Your task to perform on an android device: install app "Viber Messenger" Image 0: 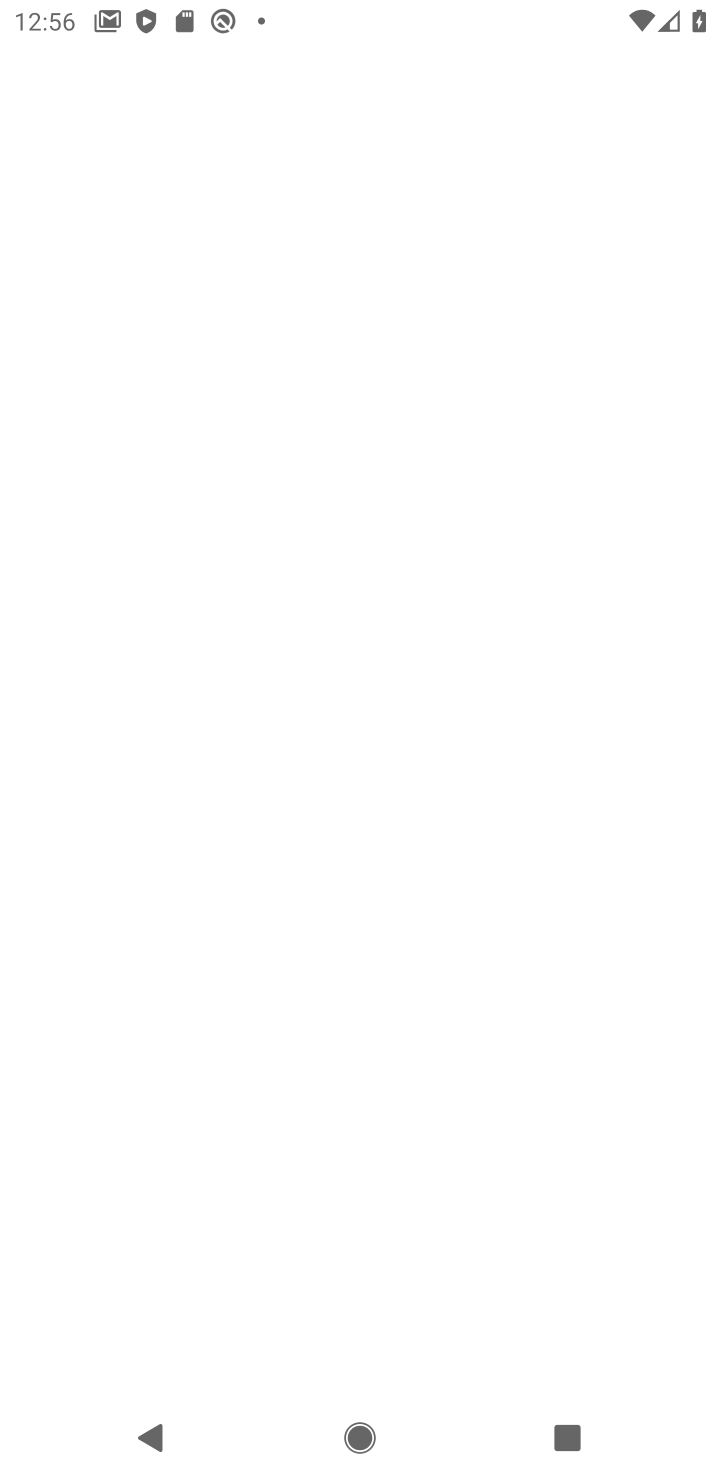
Step 0: drag from (350, 1211) to (539, 481)
Your task to perform on an android device: install app "Viber Messenger" Image 1: 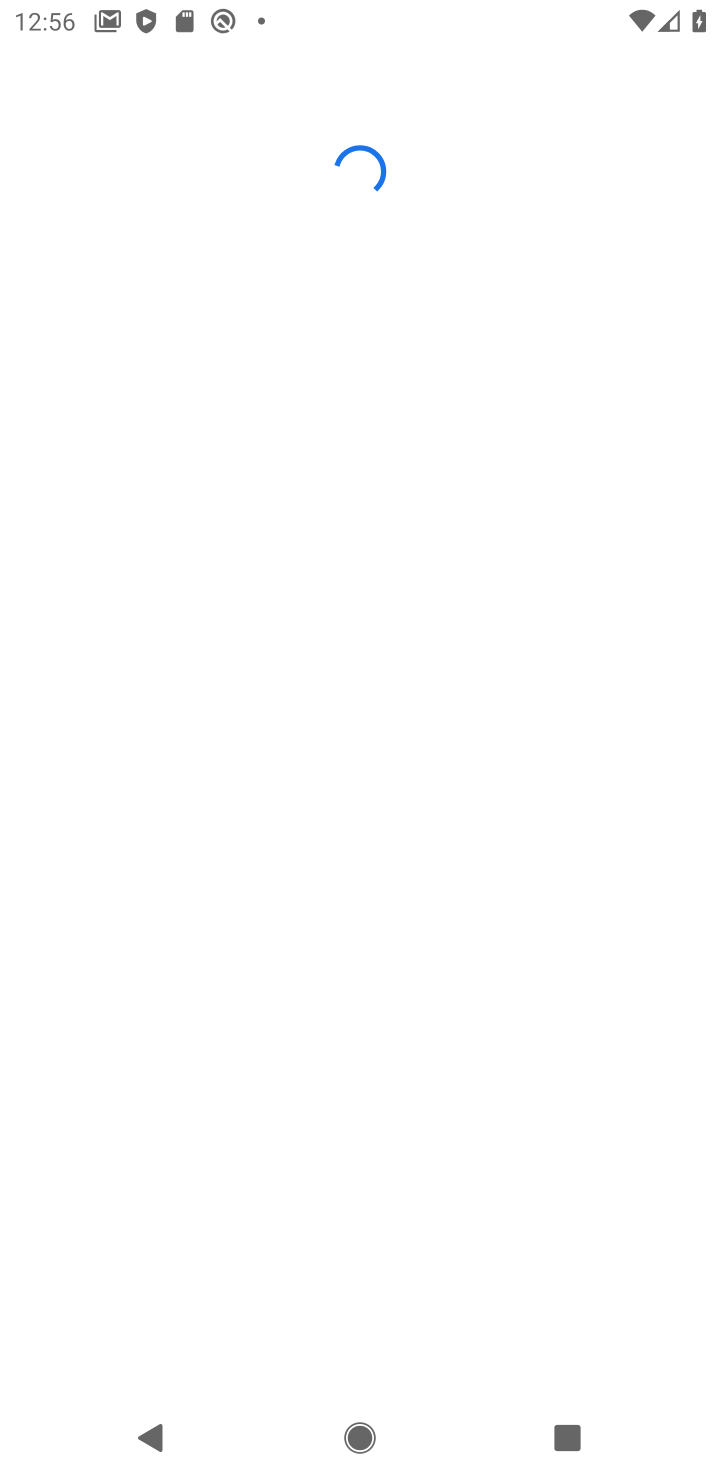
Step 1: press home button
Your task to perform on an android device: install app "Viber Messenger" Image 2: 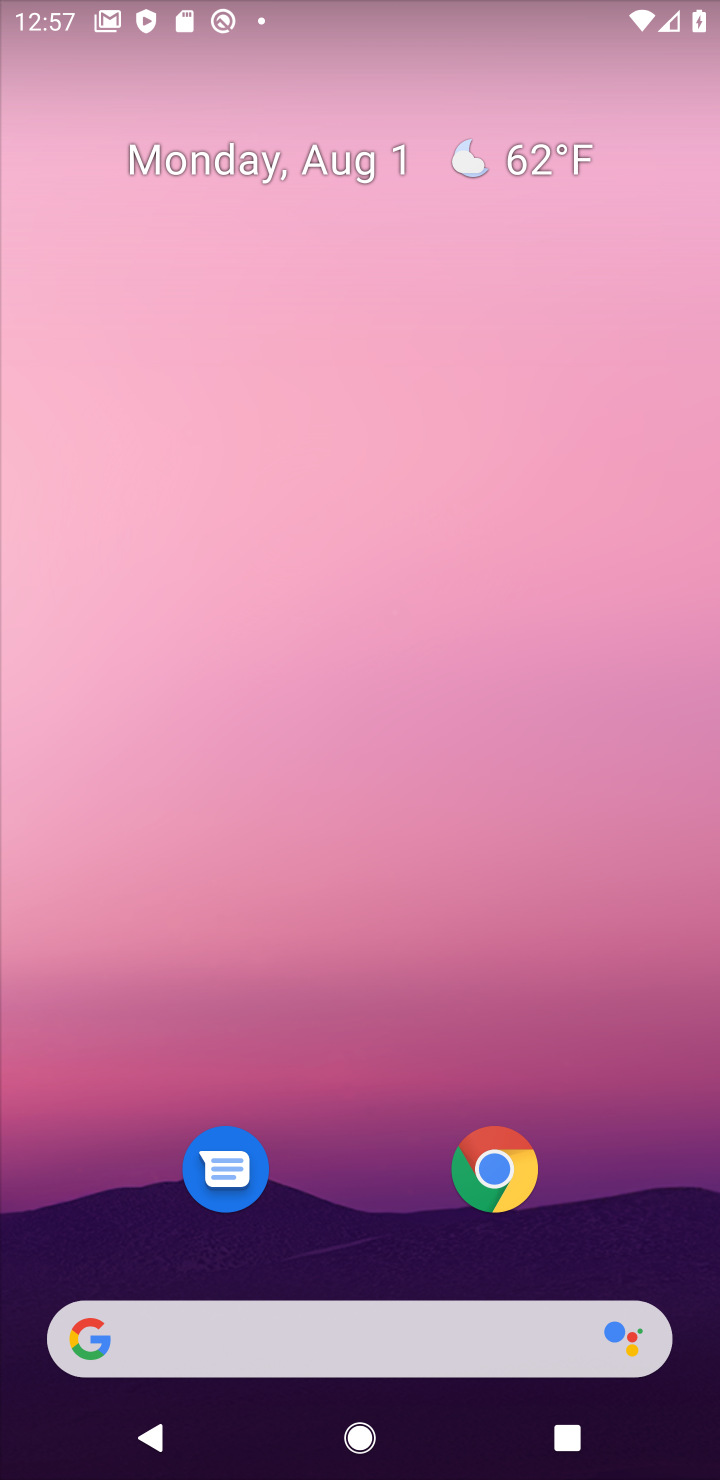
Step 2: drag from (275, 1158) to (438, 197)
Your task to perform on an android device: install app "Viber Messenger" Image 3: 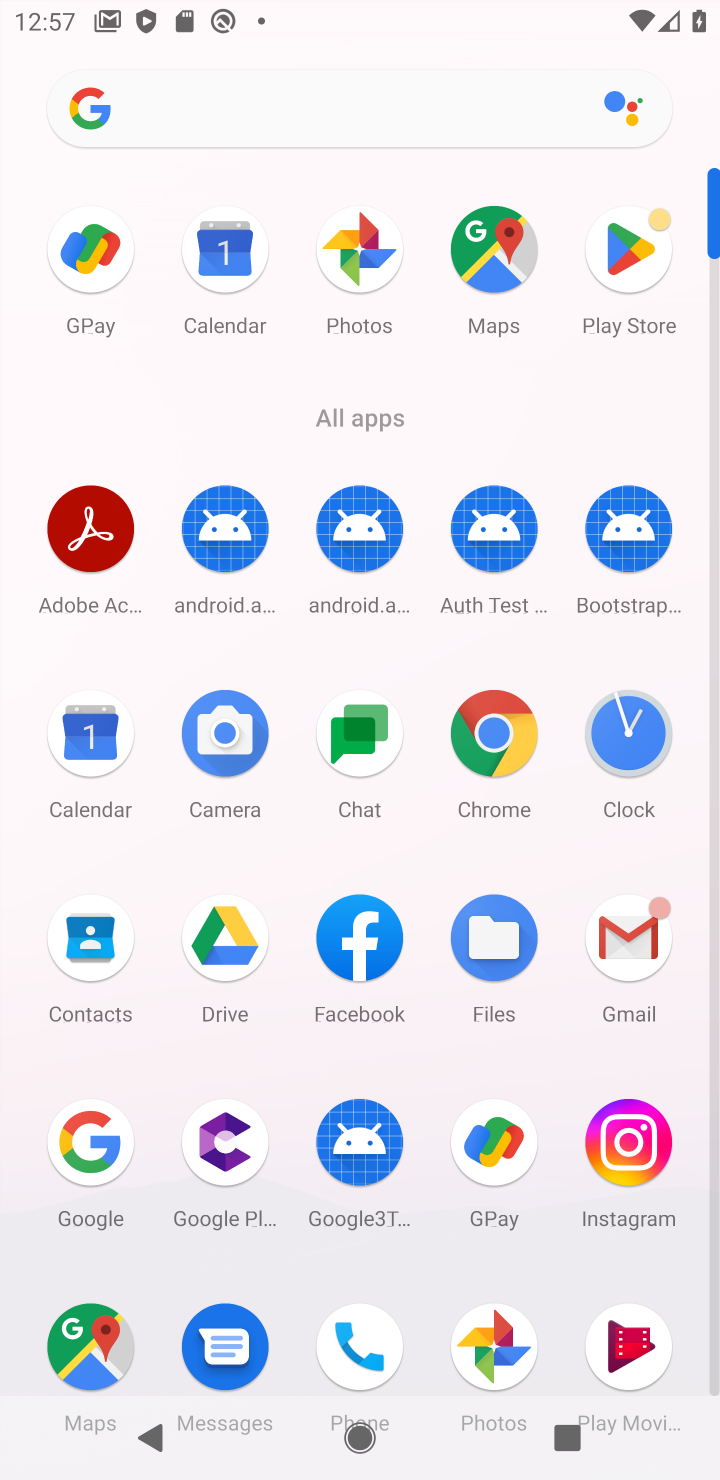
Step 3: click (622, 310)
Your task to perform on an android device: install app "Viber Messenger" Image 4: 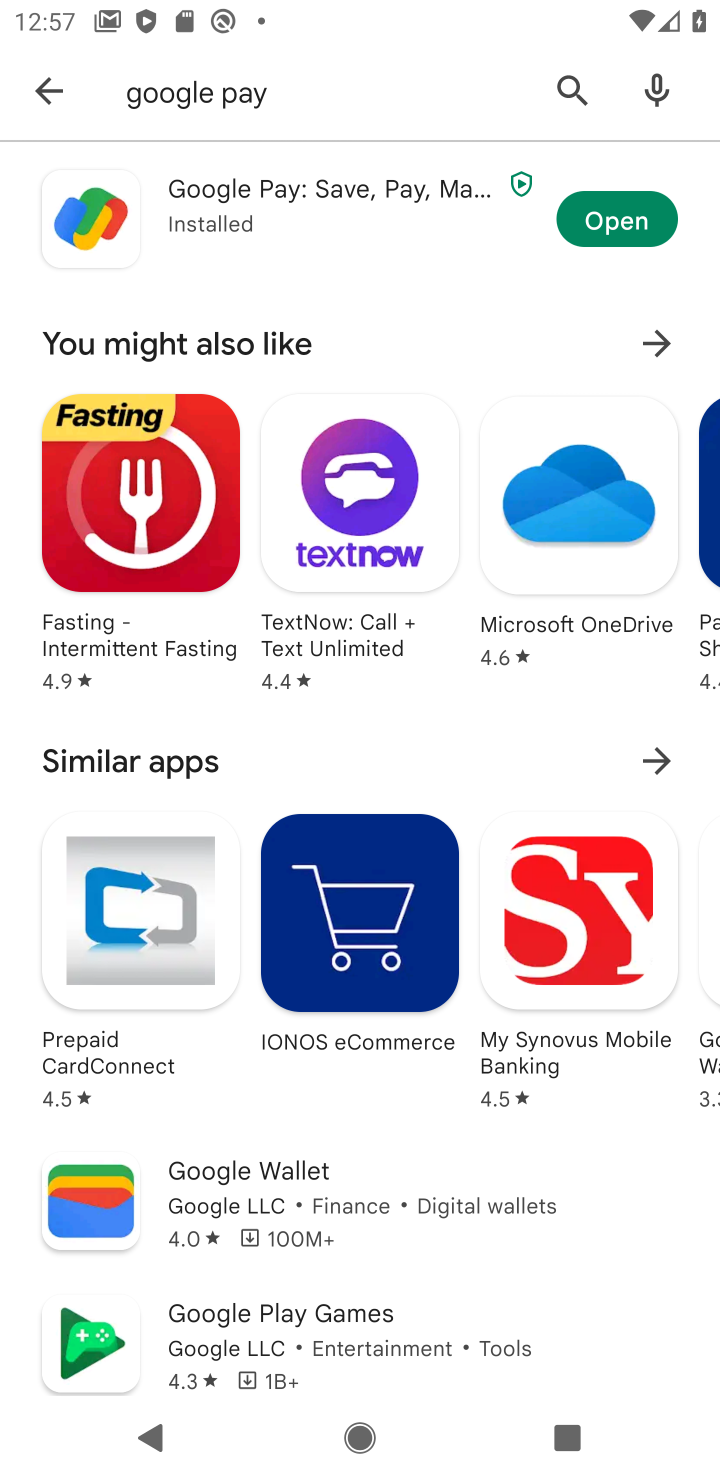
Step 4: click (45, 91)
Your task to perform on an android device: install app "Viber Messenger" Image 5: 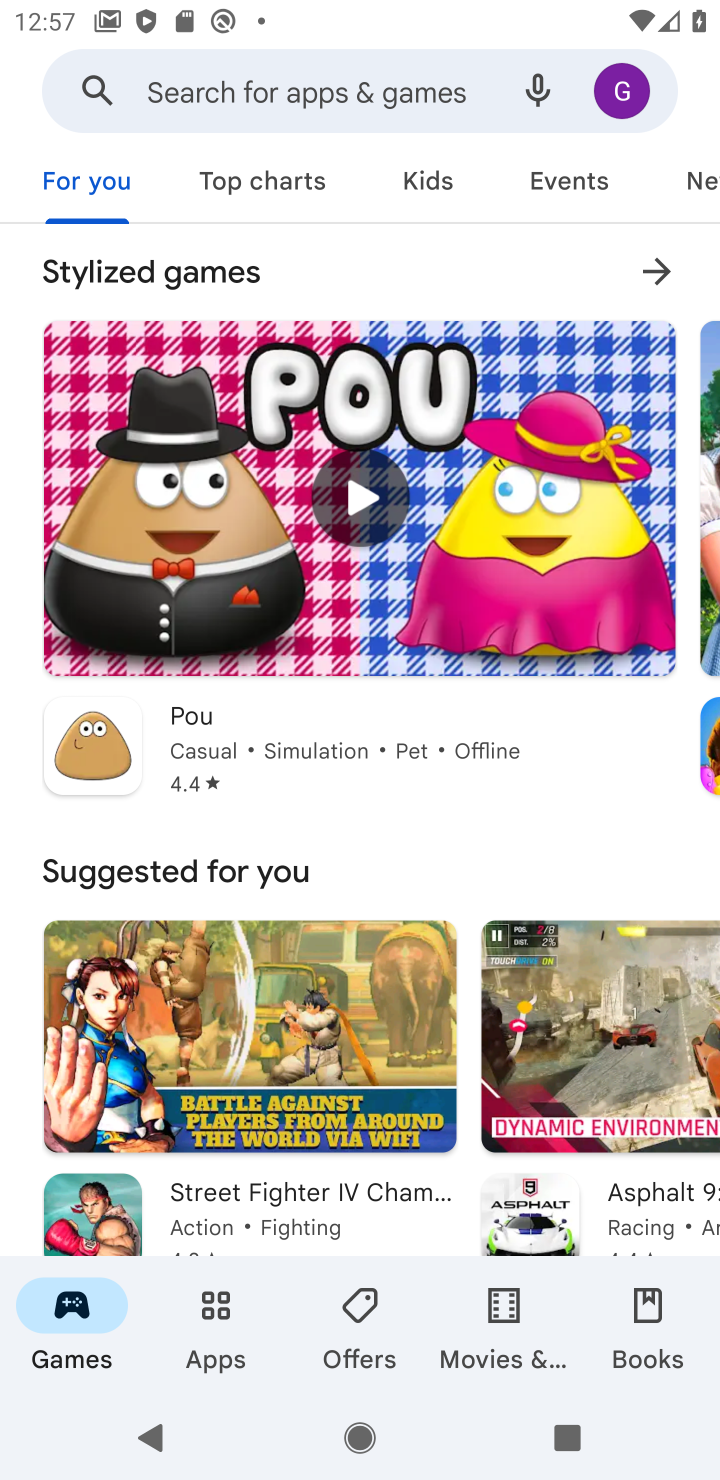
Step 5: click (259, 66)
Your task to perform on an android device: install app "Viber Messenger" Image 6: 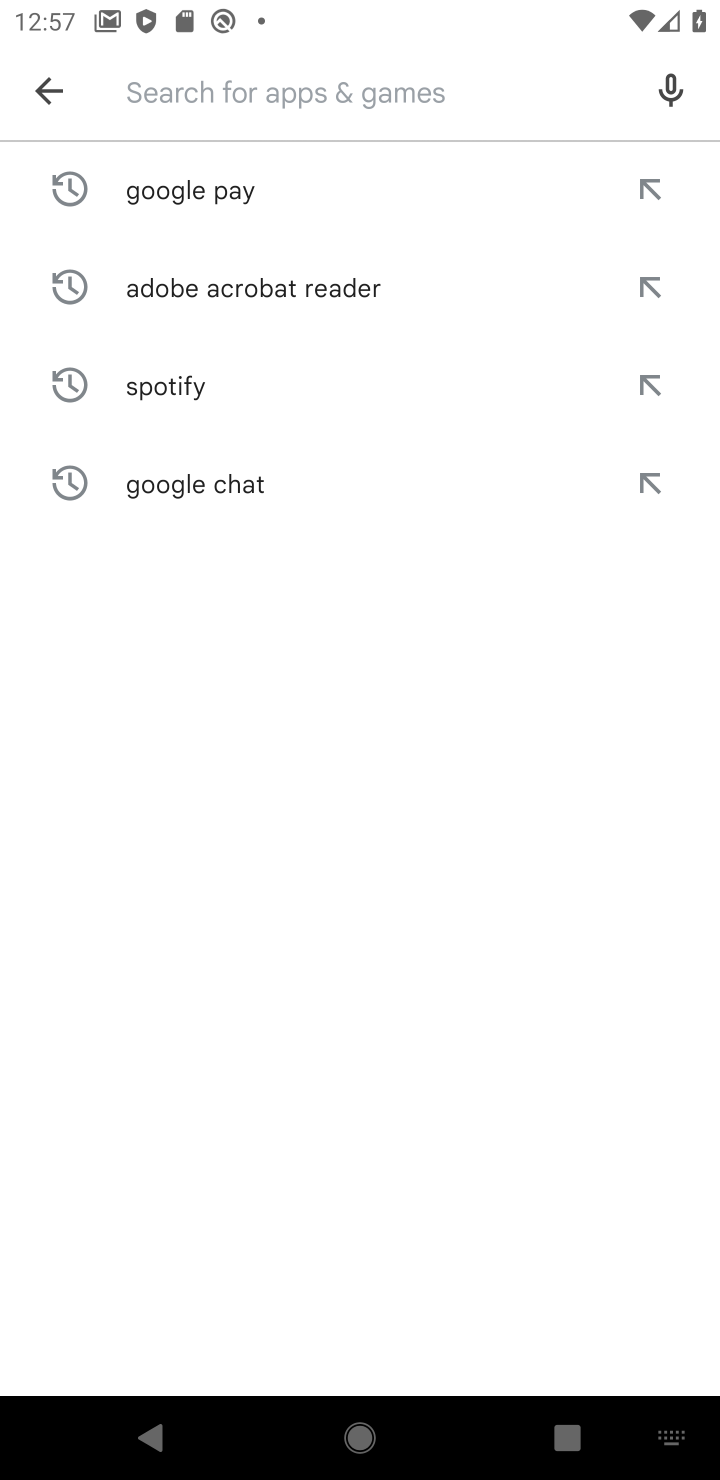
Step 6: type "Viber Messenger"
Your task to perform on an android device: install app "Viber Messenger" Image 7: 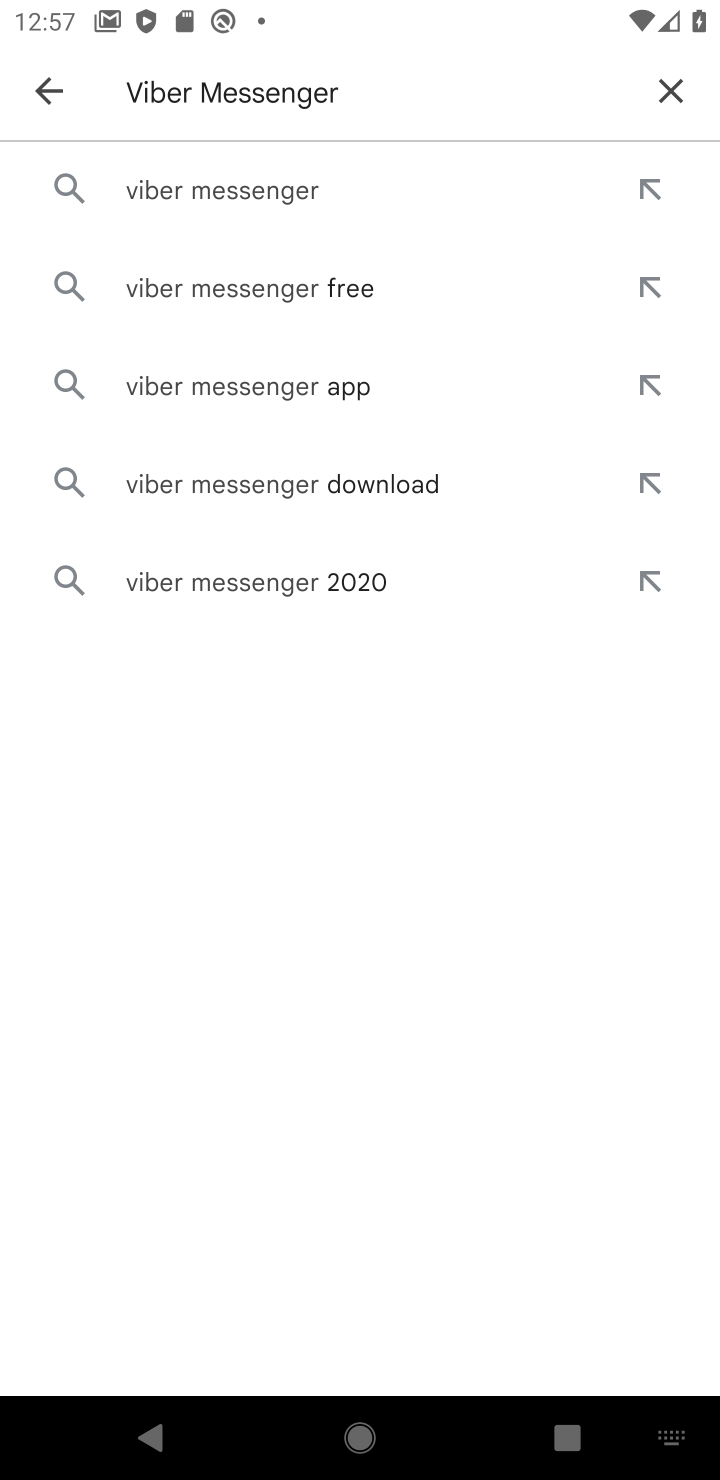
Step 7: click (251, 194)
Your task to perform on an android device: install app "Viber Messenger" Image 8: 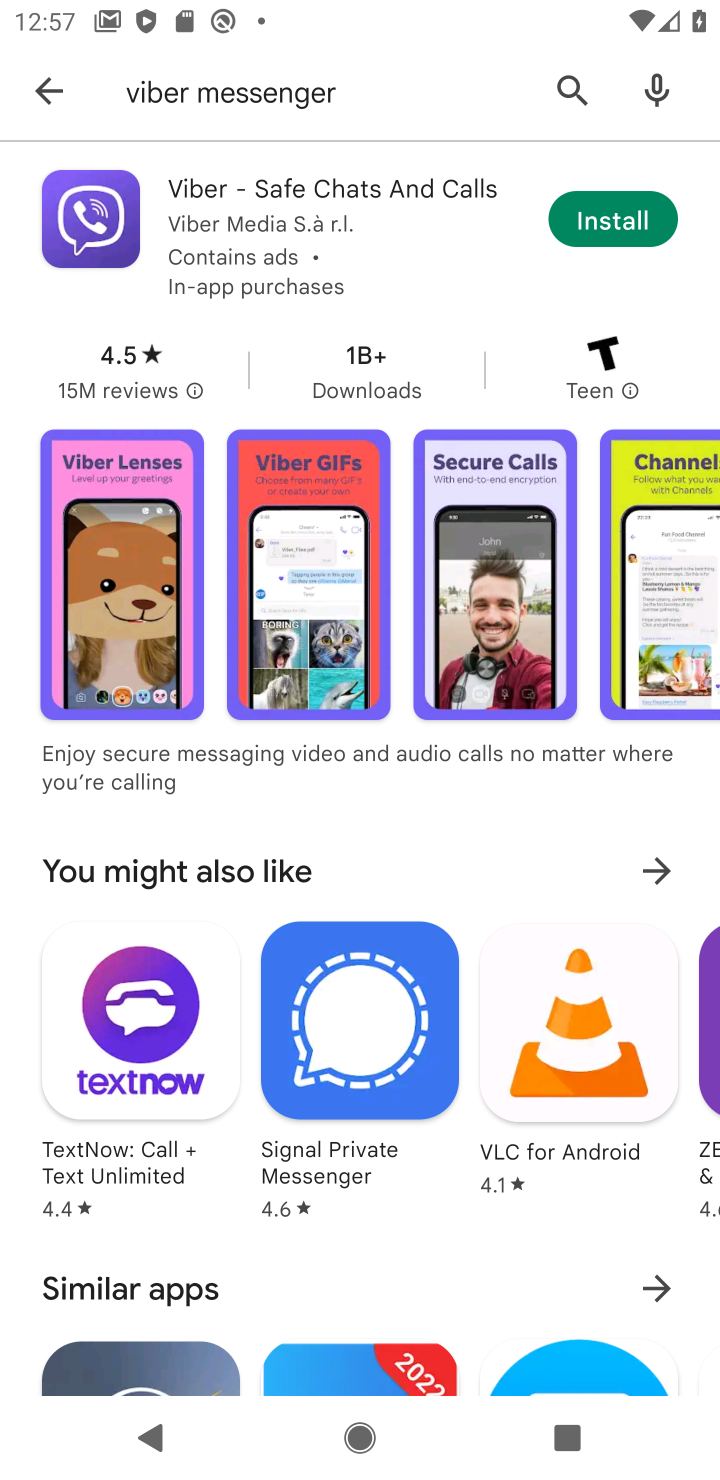
Step 8: click (601, 206)
Your task to perform on an android device: install app "Viber Messenger" Image 9: 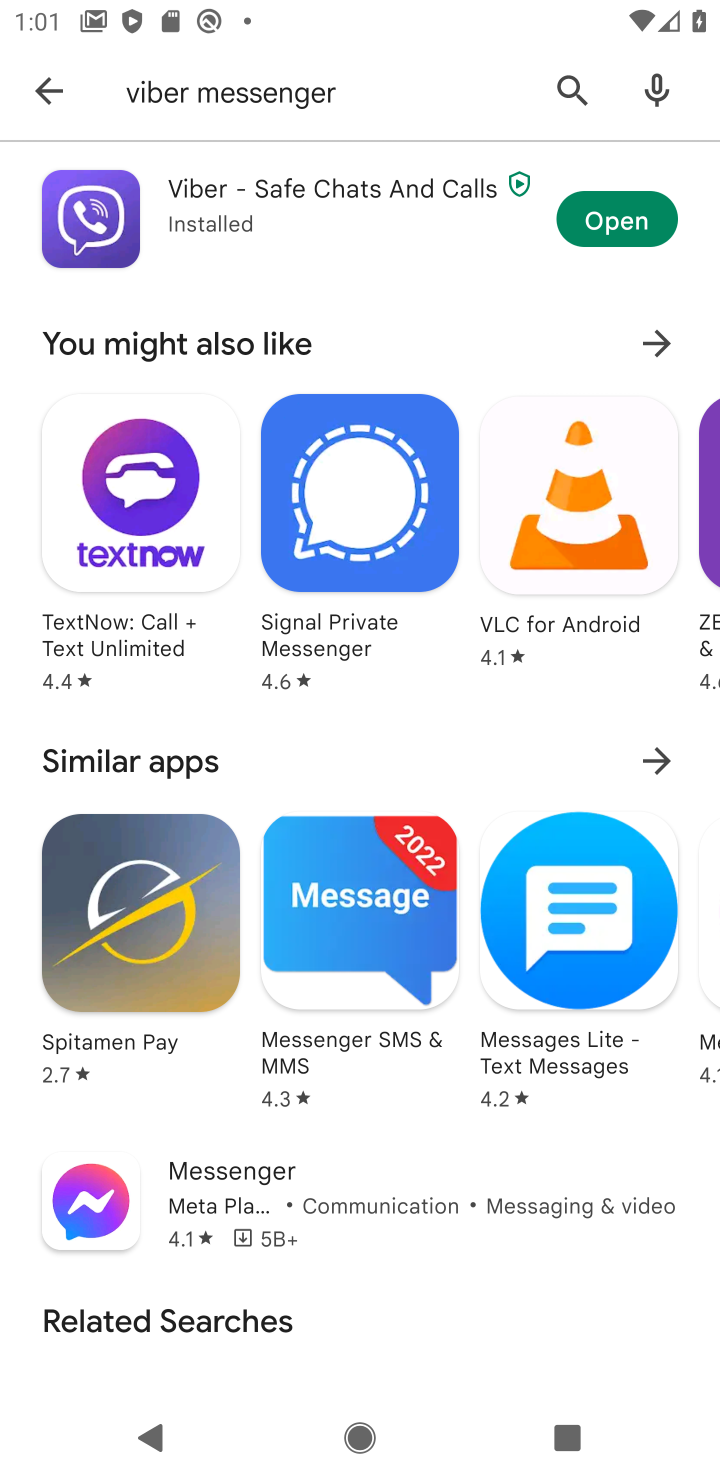
Step 9: task complete